Your task to perform on an android device: move an email to a new category in the gmail app Image 0: 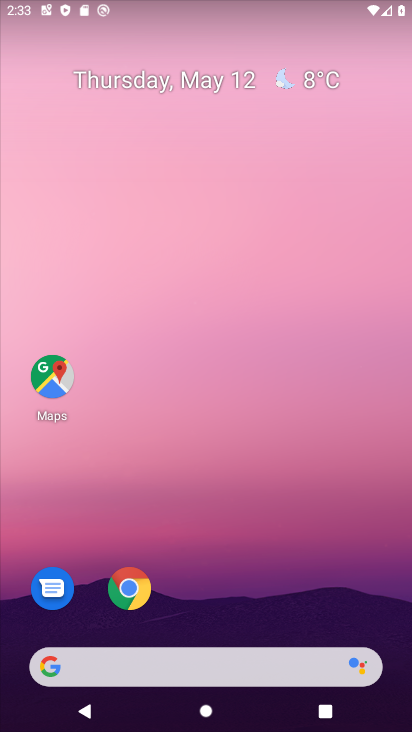
Step 0: drag from (259, 566) to (251, 56)
Your task to perform on an android device: move an email to a new category in the gmail app Image 1: 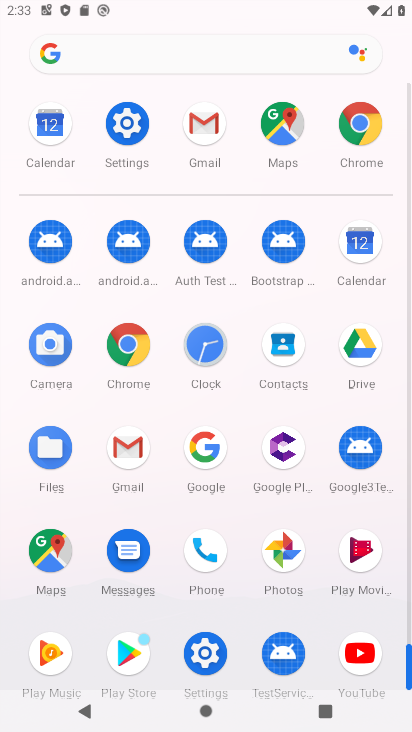
Step 1: click (132, 444)
Your task to perform on an android device: move an email to a new category in the gmail app Image 2: 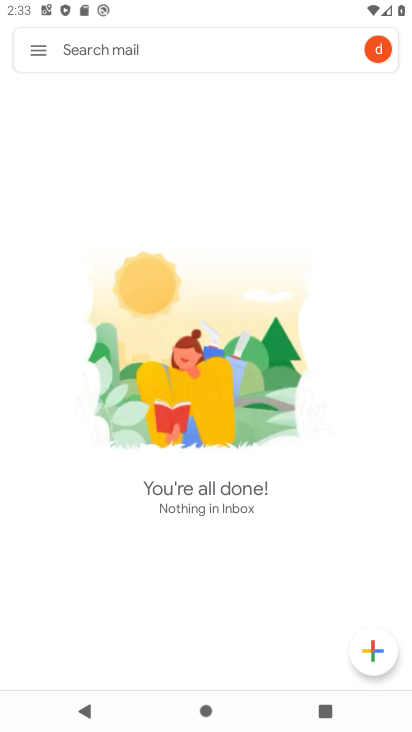
Step 2: click (38, 51)
Your task to perform on an android device: move an email to a new category in the gmail app Image 3: 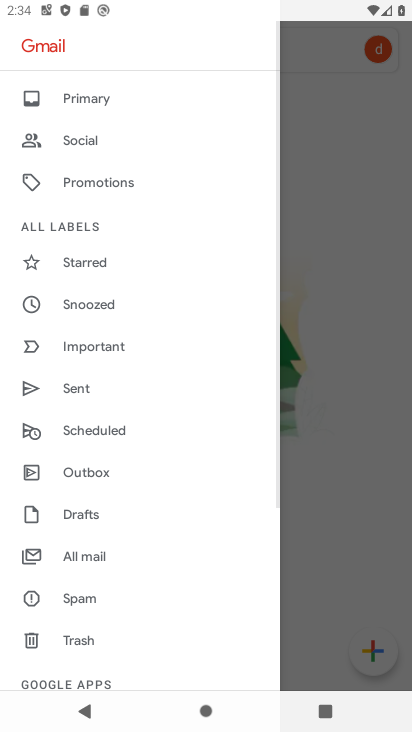
Step 3: drag from (170, 179) to (178, 485)
Your task to perform on an android device: move an email to a new category in the gmail app Image 4: 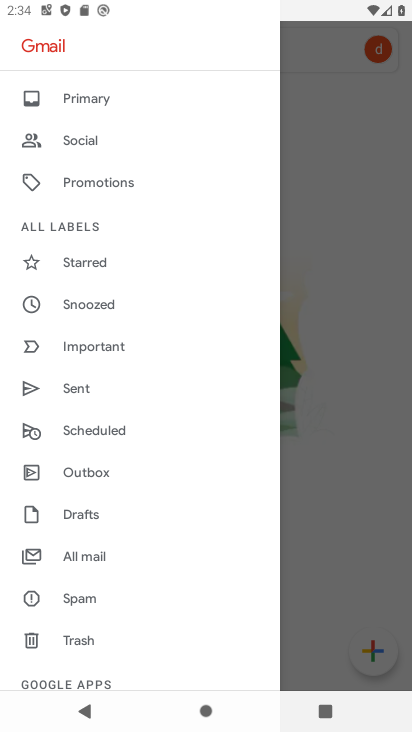
Step 4: drag from (162, 142) to (158, 448)
Your task to perform on an android device: move an email to a new category in the gmail app Image 5: 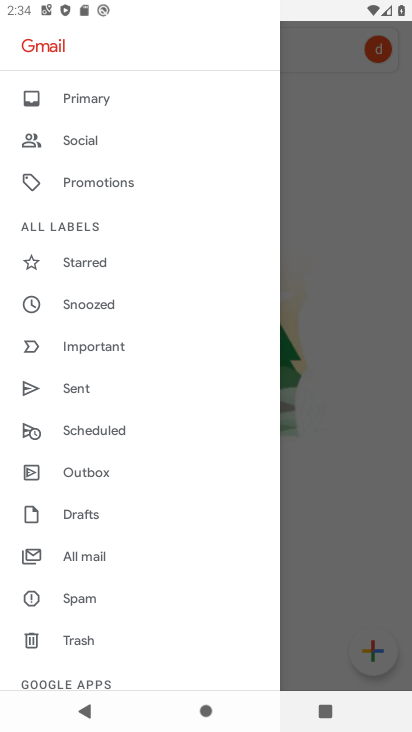
Step 5: click (125, 106)
Your task to perform on an android device: move an email to a new category in the gmail app Image 6: 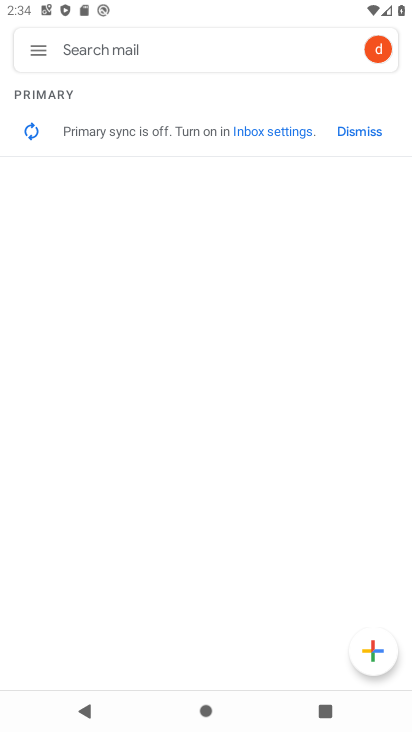
Step 6: click (42, 51)
Your task to perform on an android device: move an email to a new category in the gmail app Image 7: 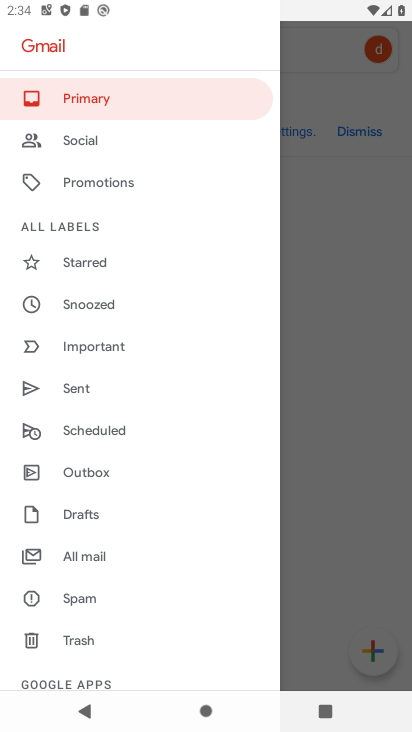
Step 7: click (87, 546)
Your task to perform on an android device: move an email to a new category in the gmail app Image 8: 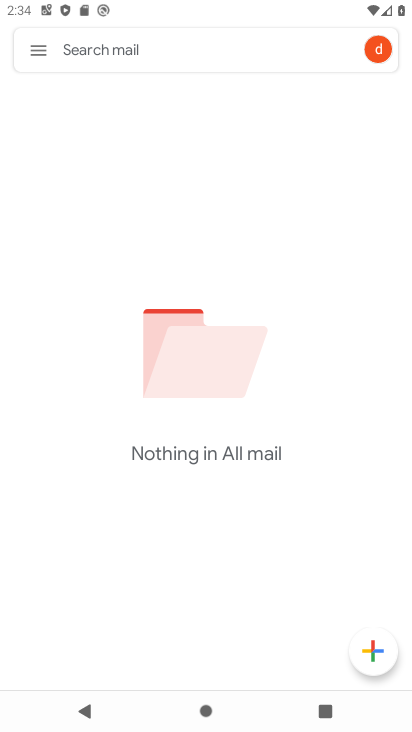
Step 8: click (30, 51)
Your task to perform on an android device: move an email to a new category in the gmail app Image 9: 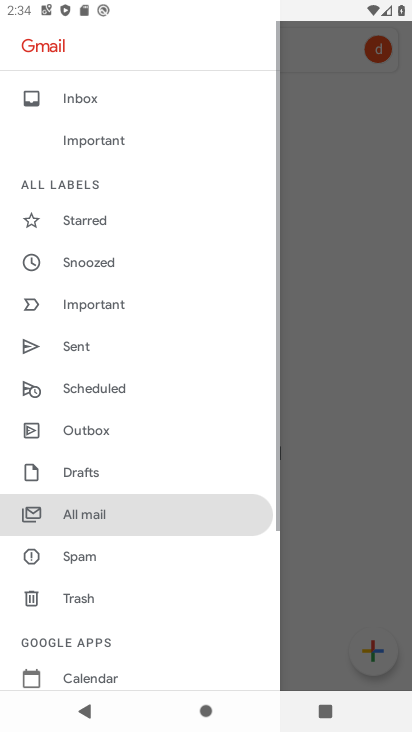
Step 9: drag from (133, 131) to (166, 547)
Your task to perform on an android device: move an email to a new category in the gmail app Image 10: 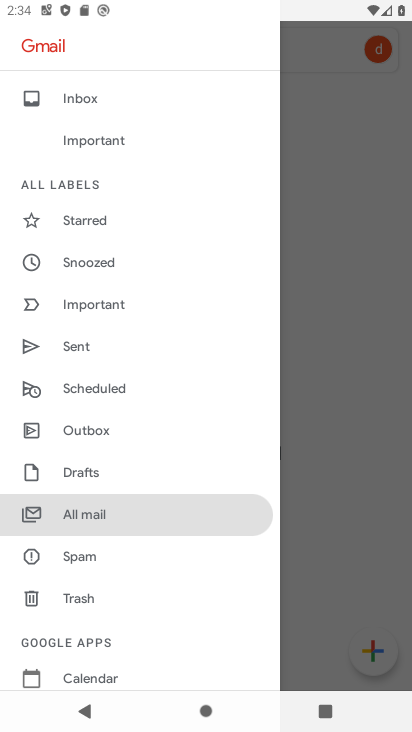
Step 10: click (104, 90)
Your task to perform on an android device: move an email to a new category in the gmail app Image 11: 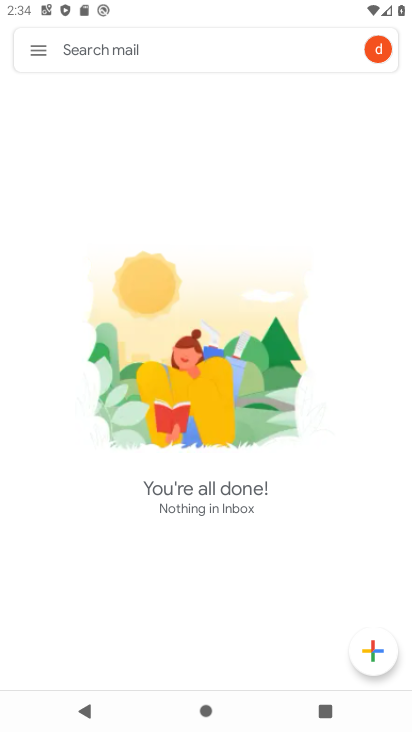
Step 11: task complete